Your task to perform on an android device: Go to Amazon Image 0: 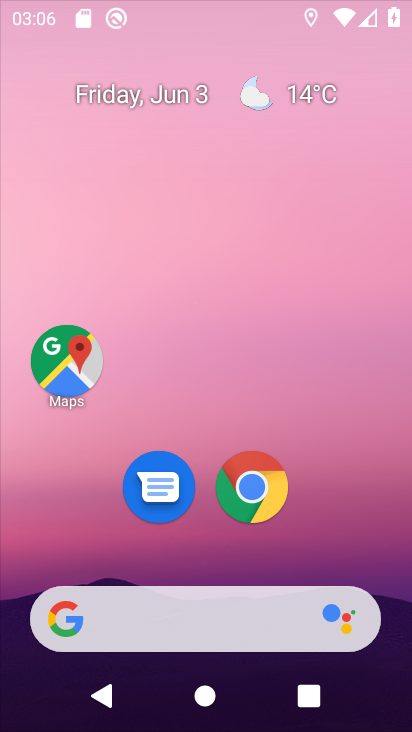
Step 0: press home button
Your task to perform on an android device: Go to Amazon Image 1: 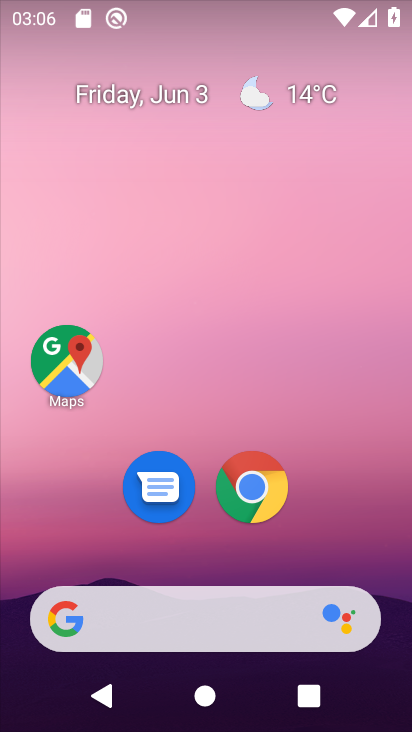
Step 1: click (241, 478)
Your task to perform on an android device: Go to Amazon Image 2: 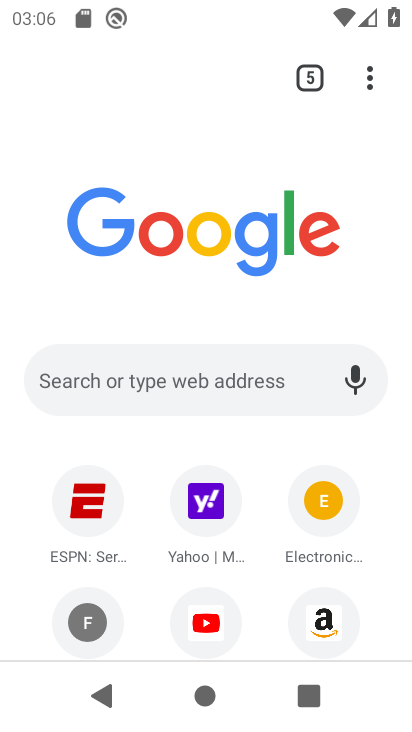
Step 2: click (330, 621)
Your task to perform on an android device: Go to Amazon Image 3: 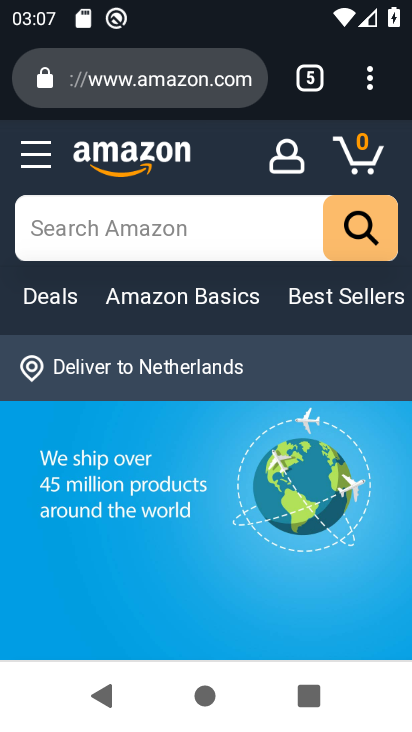
Step 3: task complete